Your task to perform on an android device: find photos in the google photos app Image 0: 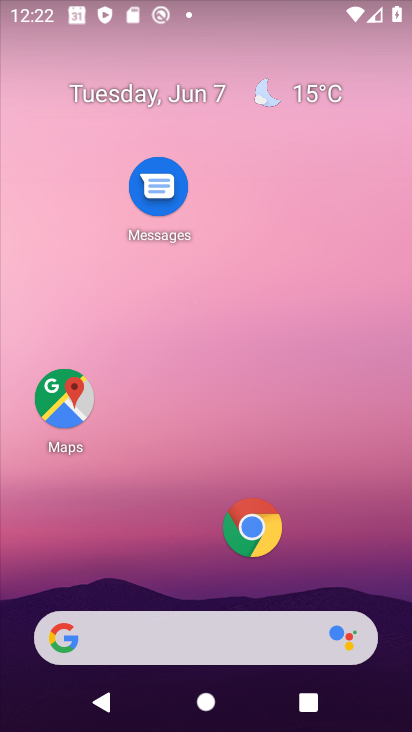
Step 0: drag from (215, 574) to (248, 345)
Your task to perform on an android device: find photos in the google photos app Image 1: 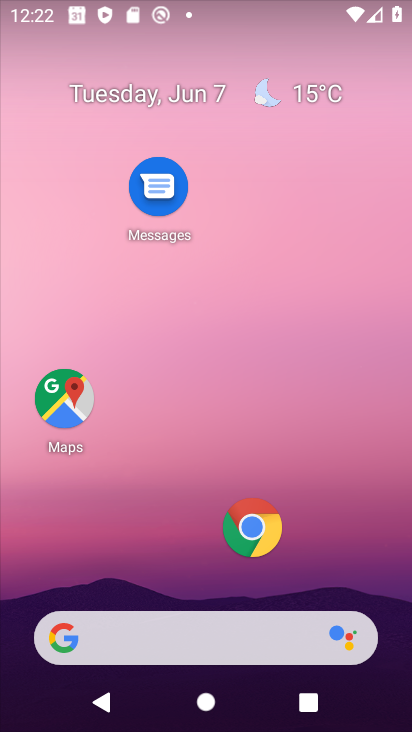
Step 1: drag from (215, 605) to (270, 152)
Your task to perform on an android device: find photos in the google photos app Image 2: 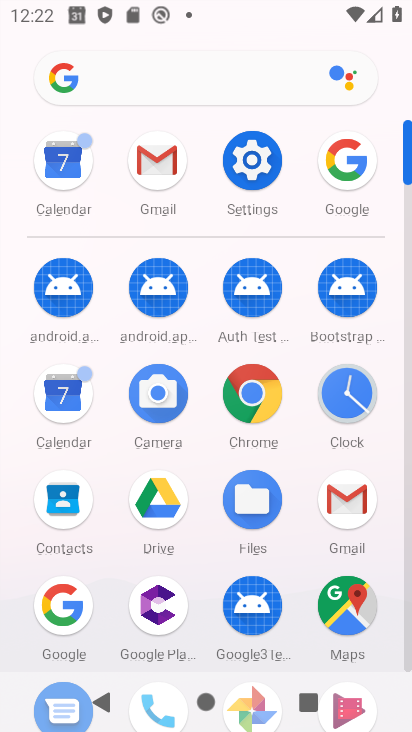
Step 2: drag from (250, 667) to (306, 179)
Your task to perform on an android device: find photos in the google photos app Image 3: 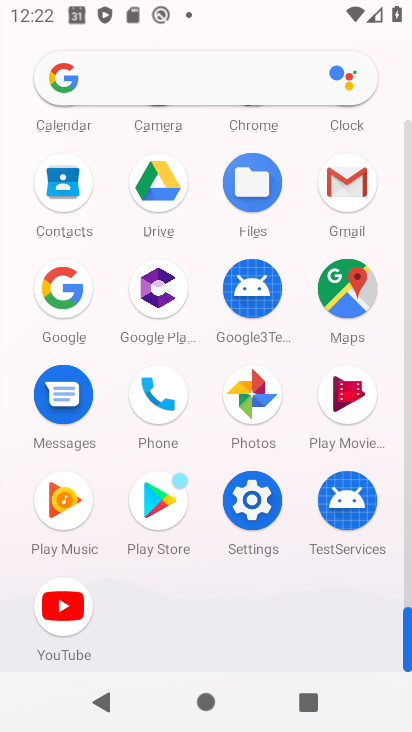
Step 3: click (246, 390)
Your task to perform on an android device: find photos in the google photos app Image 4: 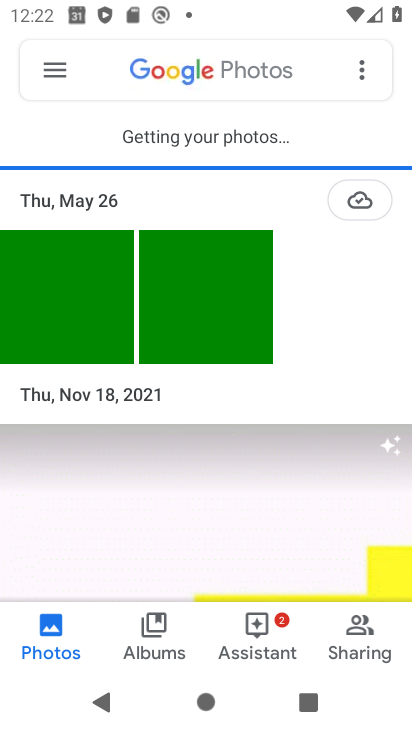
Step 4: click (144, 63)
Your task to perform on an android device: find photos in the google photos app Image 5: 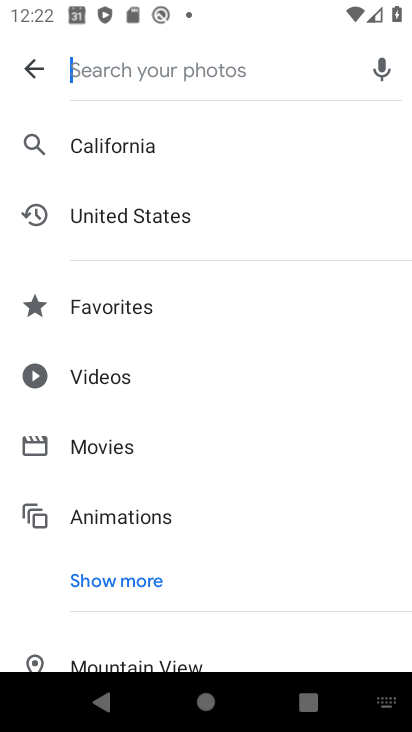
Step 5: click (109, 297)
Your task to perform on an android device: find photos in the google photos app Image 6: 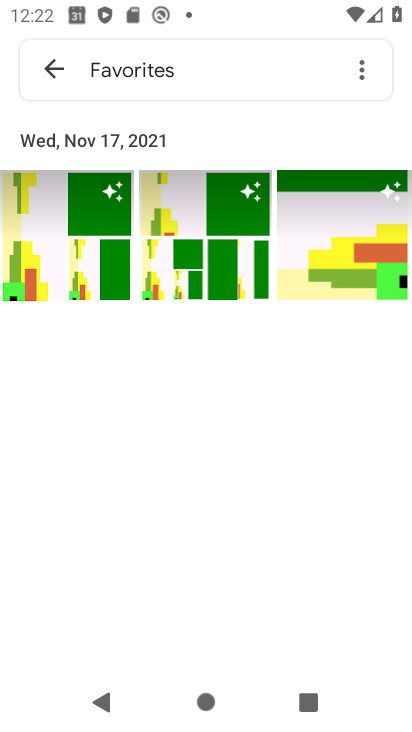
Step 6: task complete